Your task to perform on an android device: turn off picture-in-picture Image 0: 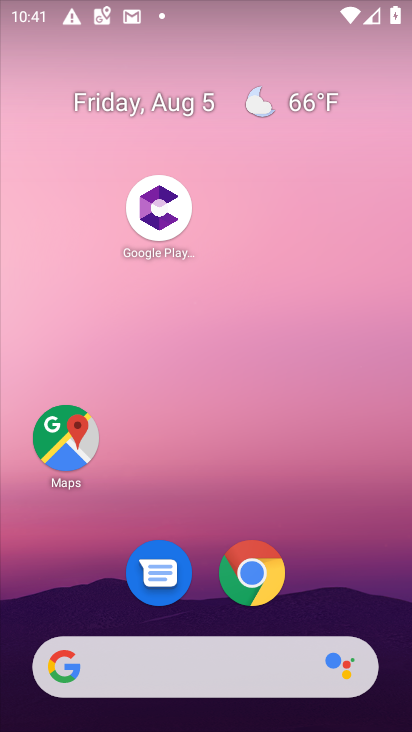
Step 0: click (242, 568)
Your task to perform on an android device: turn off picture-in-picture Image 1: 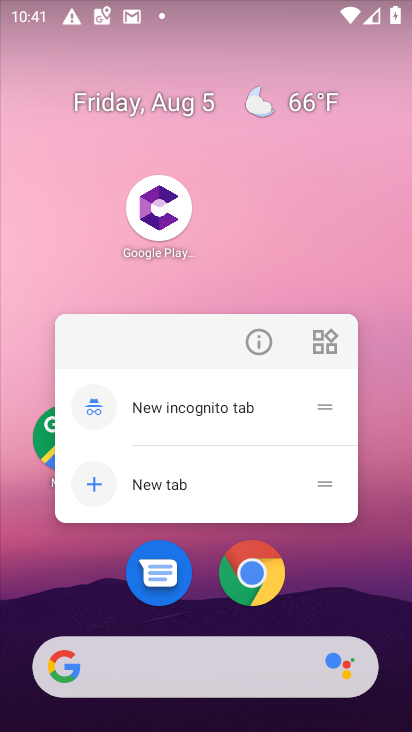
Step 1: click (256, 334)
Your task to perform on an android device: turn off picture-in-picture Image 2: 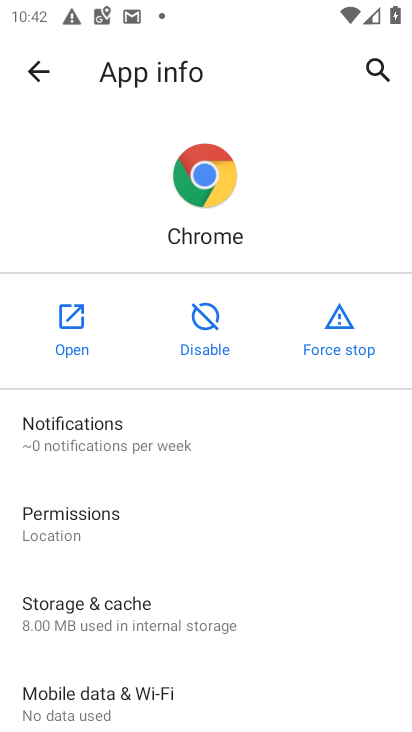
Step 2: drag from (183, 670) to (214, 121)
Your task to perform on an android device: turn off picture-in-picture Image 3: 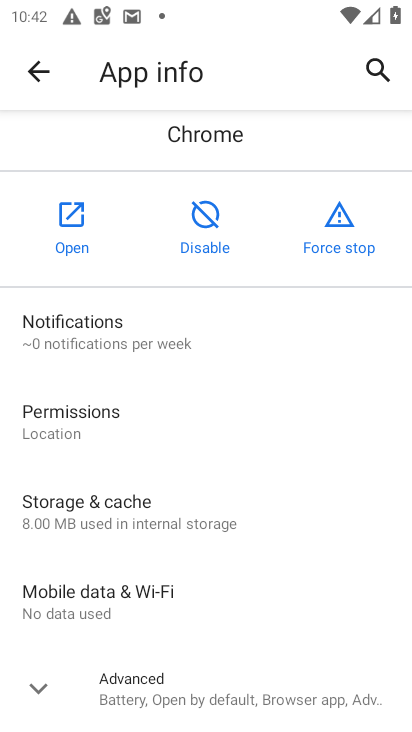
Step 3: click (36, 690)
Your task to perform on an android device: turn off picture-in-picture Image 4: 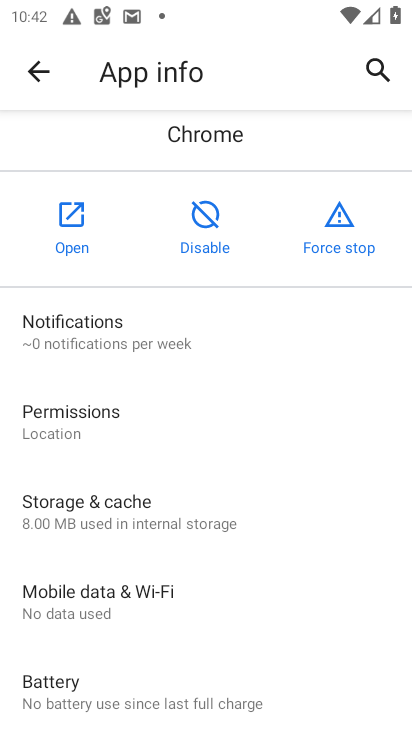
Step 4: drag from (185, 676) to (182, 212)
Your task to perform on an android device: turn off picture-in-picture Image 5: 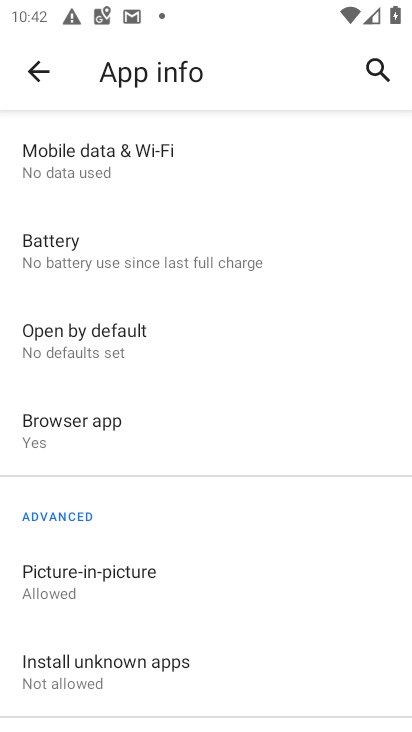
Step 5: click (96, 587)
Your task to perform on an android device: turn off picture-in-picture Image 6: 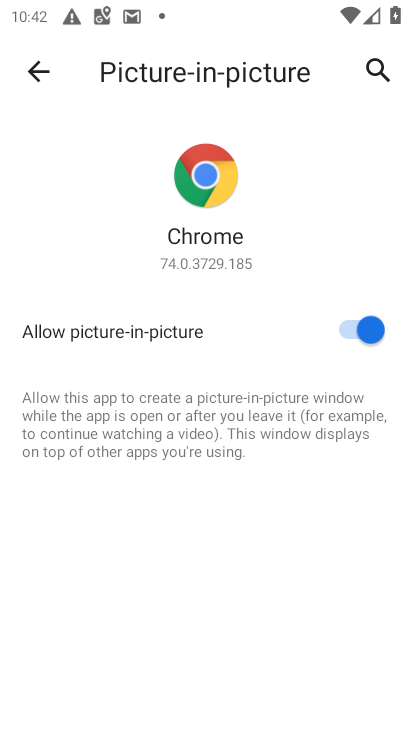
Step 6: click (353, 323)
Your task to perform on an android device: turn off picture-in-picture Image 7: 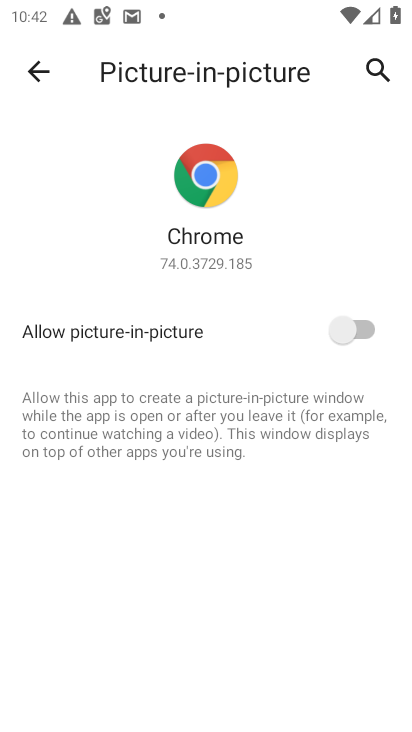
Step 7: task complete